Your task to perform on an android device: open app "YouTube Kids" Image 0: 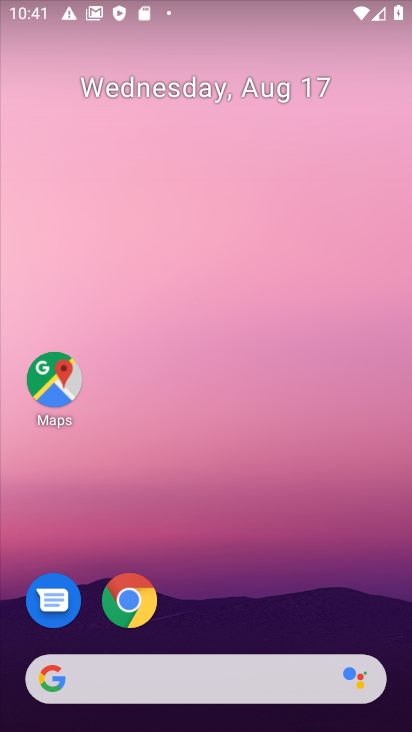
Step 0: drag from (216, 627) to (284, 41)
Your task to perform on an android device: open app "YouTube Kids" Image 1: 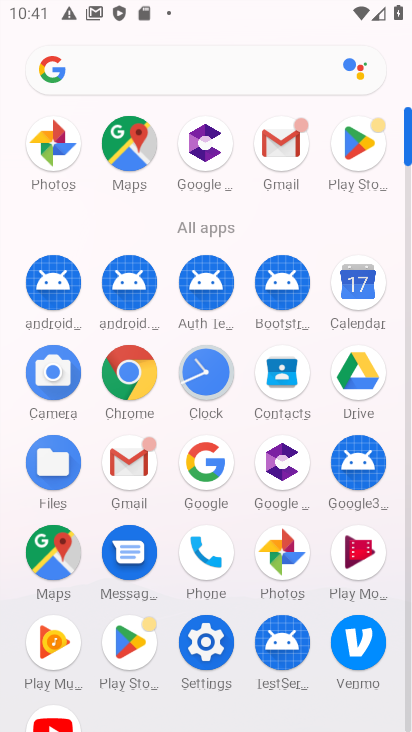
Step 1: click (352, 138)
Your task to perform on an android device: open app "YouTube Kids" Image 2: 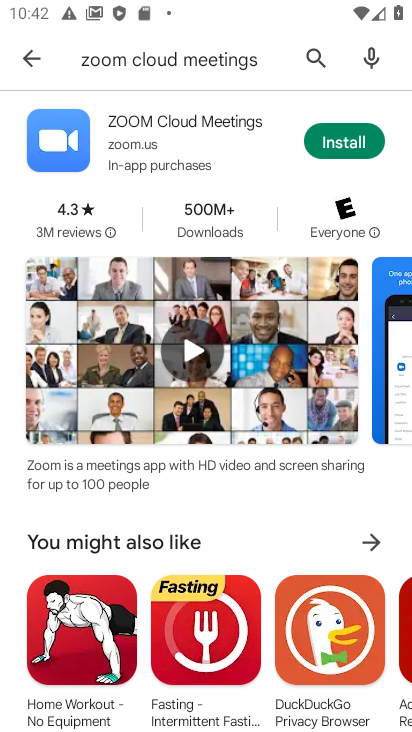
Step 2: click (314, 57)
Your task to perform on an android device: open app "YouTube Kids" Image 3: 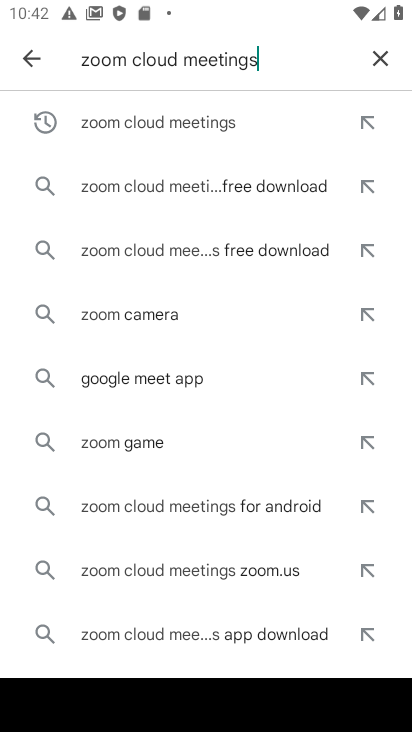
Step 3: click (385, 55)
Your task to perform on an android device: open app "YouTube Kids" Image 4: 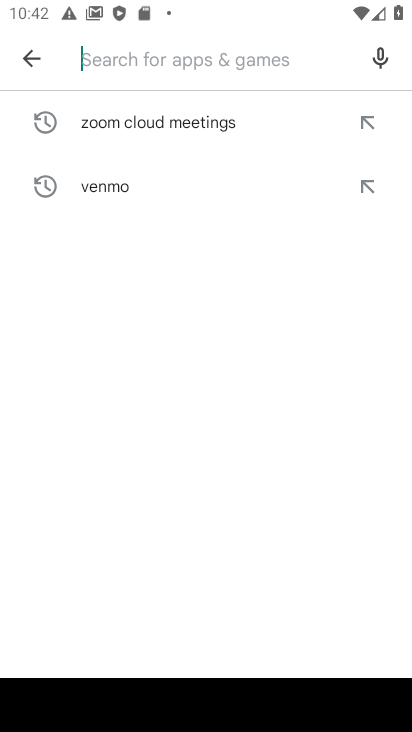
Step 4: type "YouTube Kids"
Your task to perform on an android device: open app "YouTube Kids" Image 5: 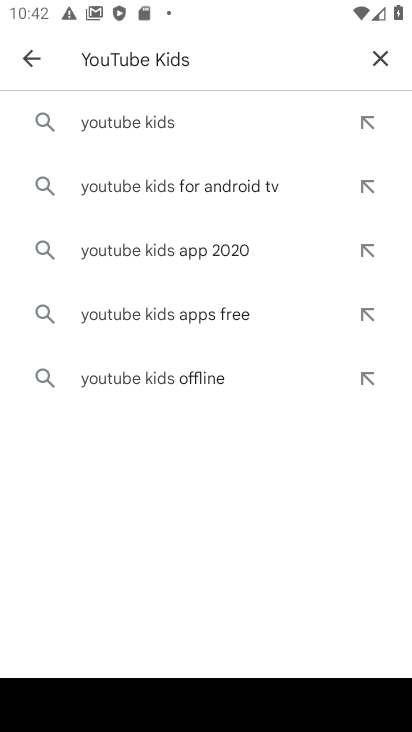
Step 5: click (178, 120)
Your task to perform on an android device: open app "YouTube Kids" Image 6: 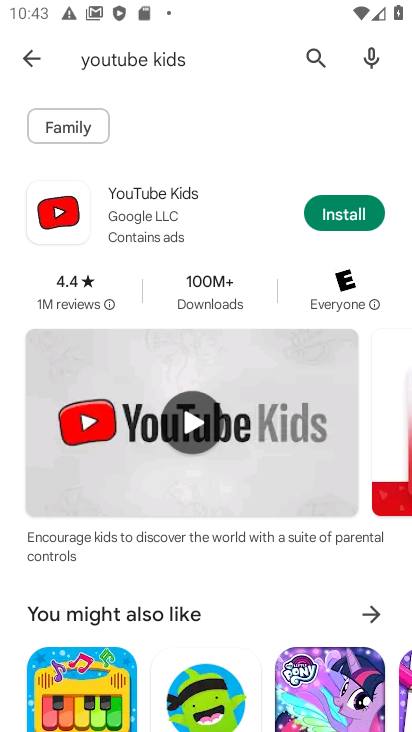
Step 6: task complete